Your task to perform on an android device: Do I have any events tomorrow? Image 0: 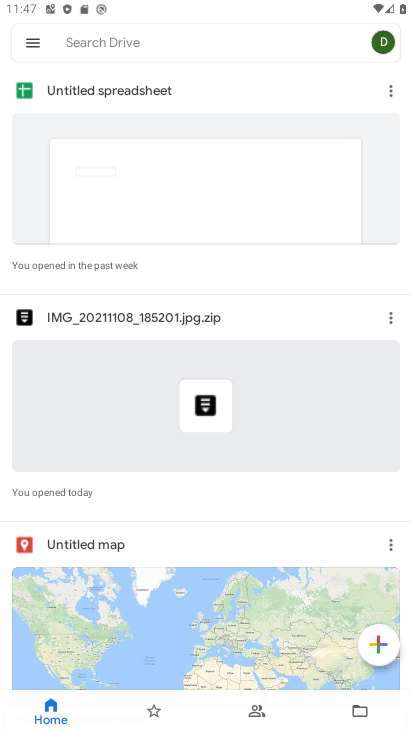
Step 0: press home button
Your task to perform on an android device: Do I have any events tomorrow? Image 1: 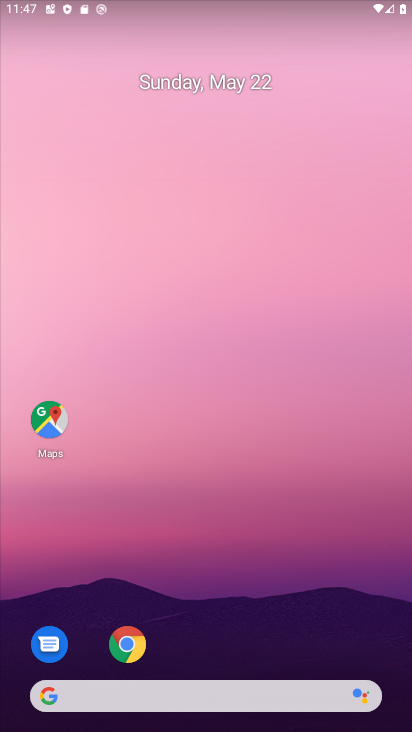
Step 1: drag from (357, 613) to (273, 78)
Your task to perform on an android device: Do I have any events tomorrow? Image 2: 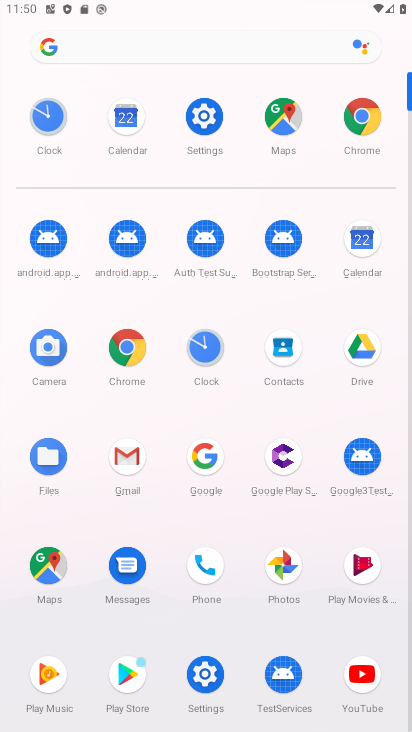
Step 2: click (351, 250)
Your task to perform on an android device: Do I have any events tomorrow? Image 3: 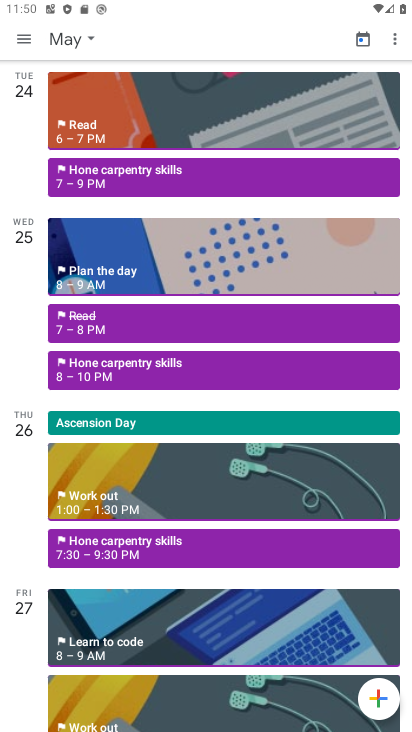
Step 3: click (74, 34)
Your task to perform on an android device: Do I have any events tomorrow? Image 4: 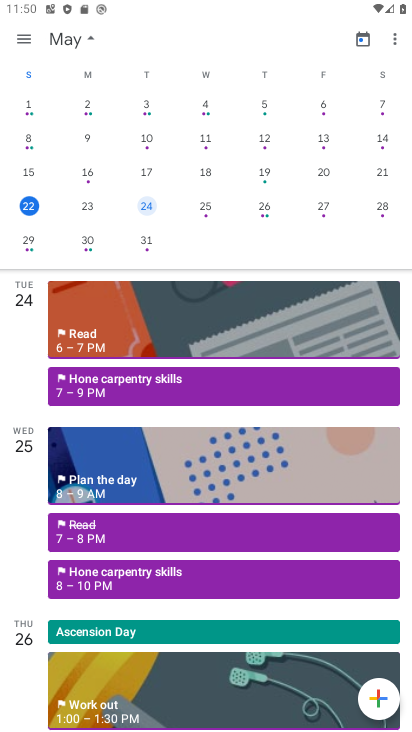
Step 4: click (146, 211)
Your task to perform on an android device: Do I have any events tomorrow? Image 5: 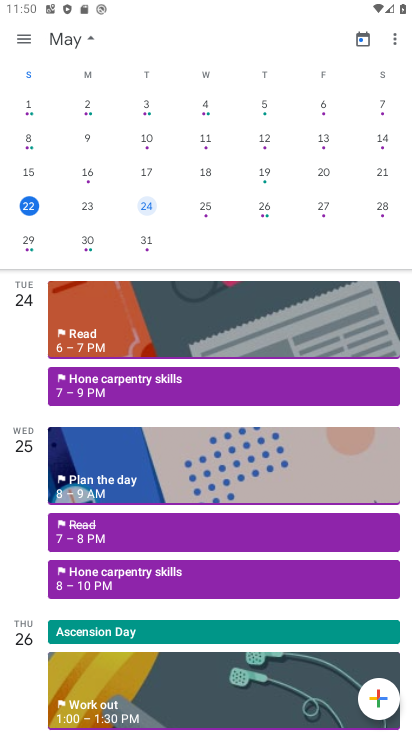
Step 5: click (141, 312)
Your task to perform on an android device: Do I have any events tomorrow? Image 6: 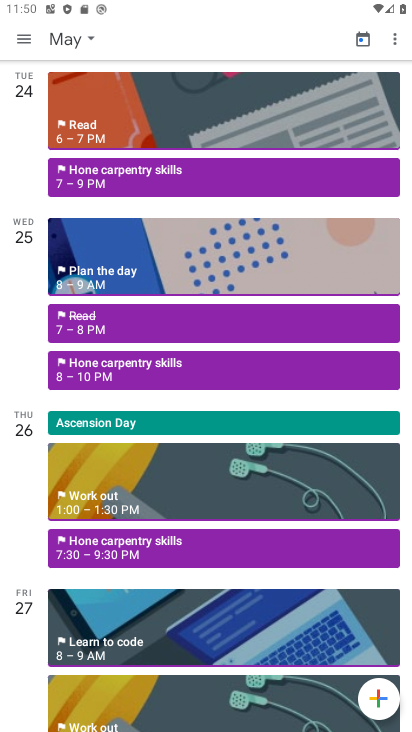
Step 6: click (175, 163)
Your task to perform on an android device: Do I have any events tomorrow? Image 7: 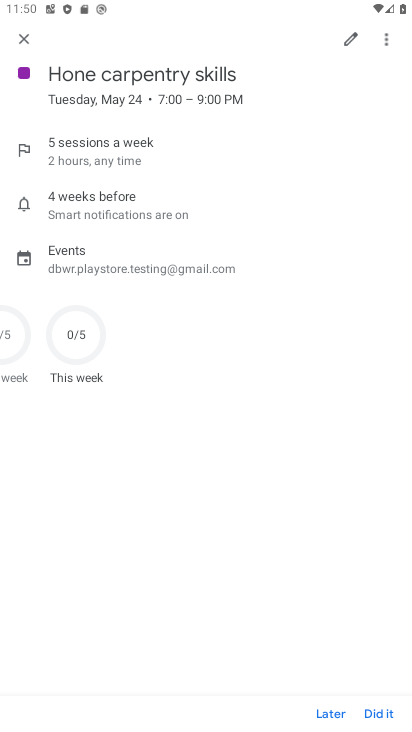
Step 7: task complete